Your task to perform on an android device: Open Maps and search for coffee Image 0: 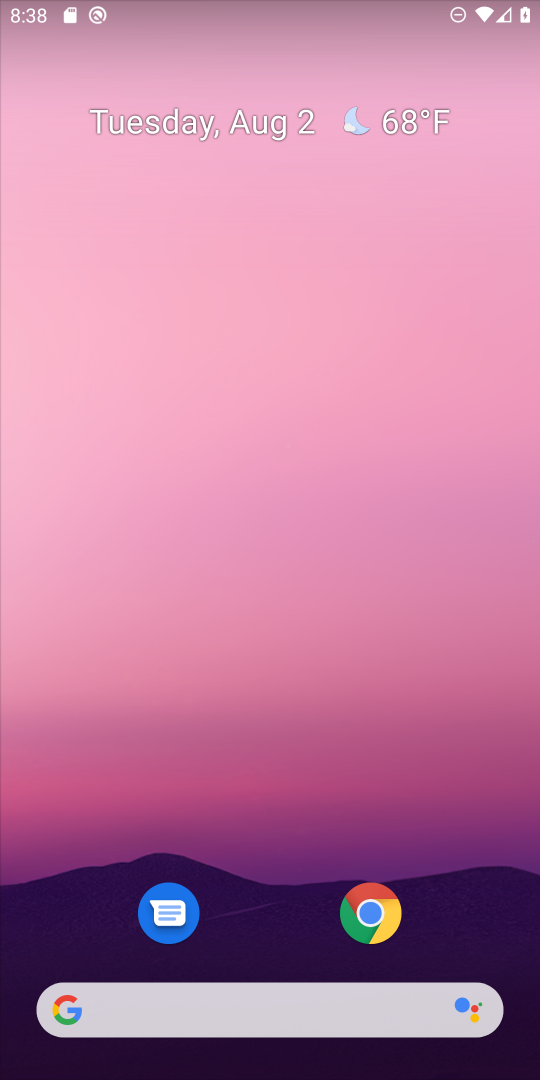
Step 0: drag from (247, 835) to (268, 256)
Your task to perform on an android device: Open Maps and search for coffee Image 1: 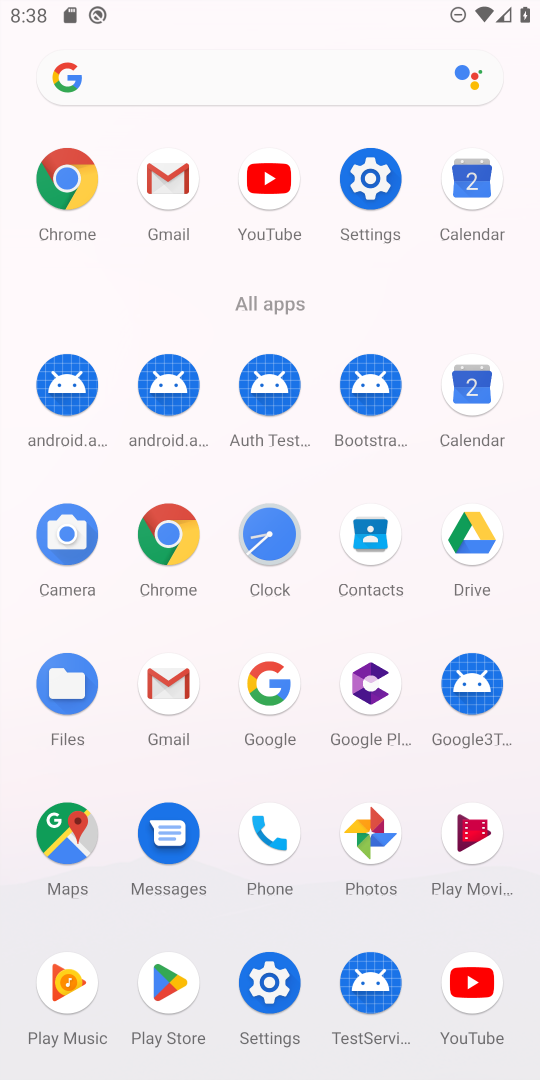
Step 1: click (85, 847)
Your task to perform on an android device: Open Maps and search for coffee Image 2: 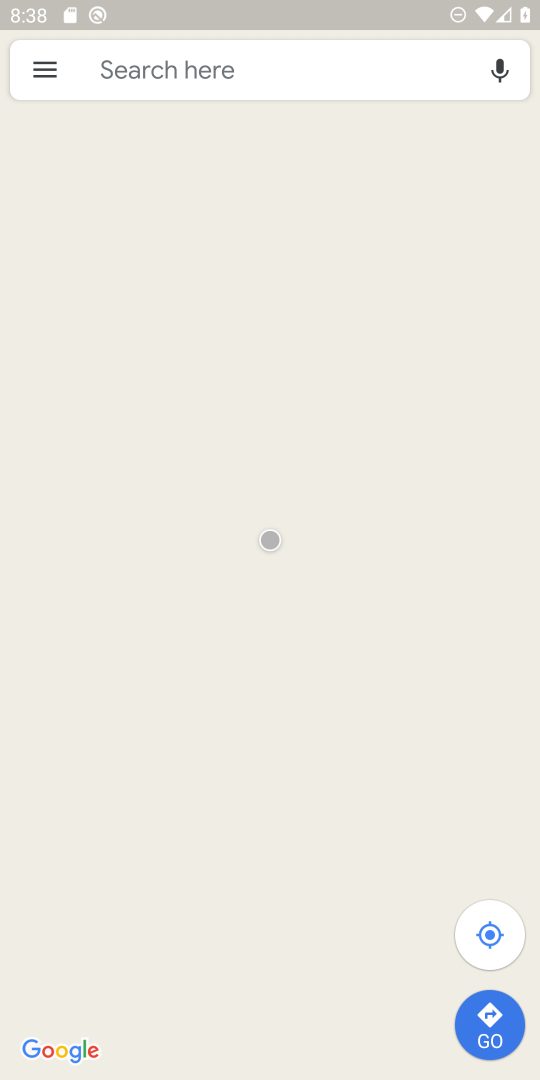
Step 2: click (164, 69)
Your task to perform on an android device: Open Maps and search for coffee Image 3: 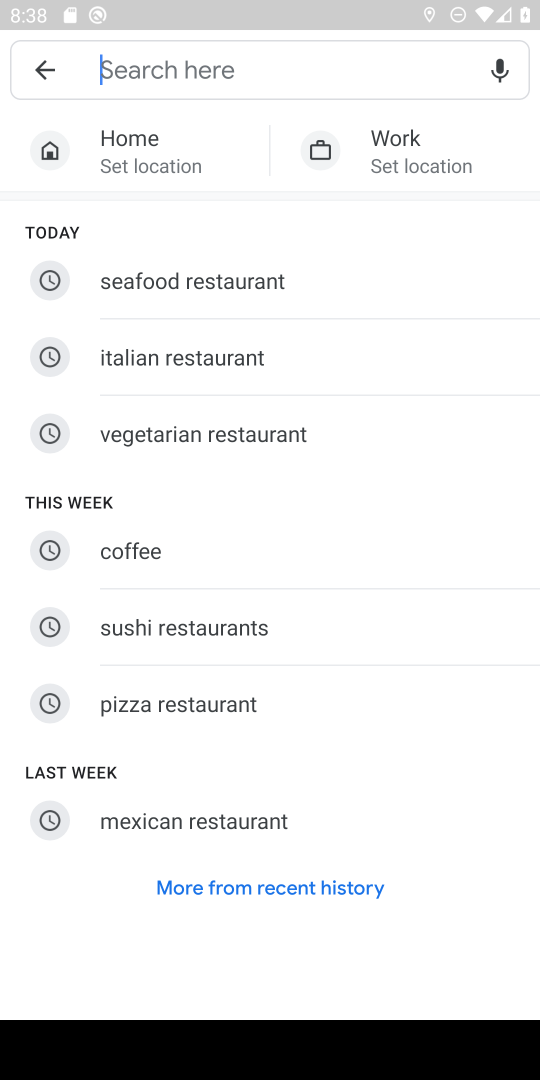
Step 3: type "coffee"
Your task to perform on an android device: Open Maps and search for coffee Image 4: 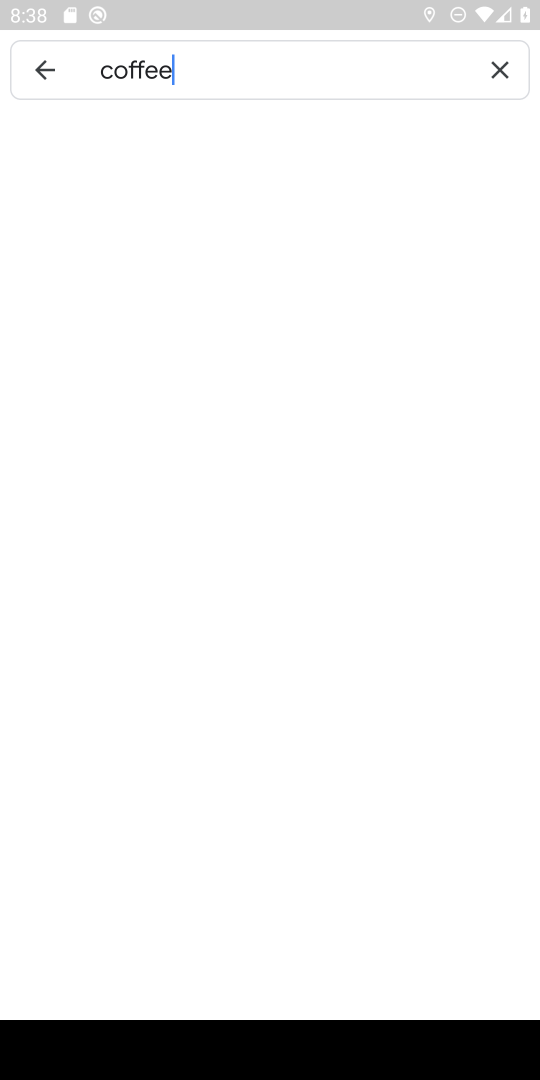
Step 4: press enter
Your task to perform on an android device: Open Maps and search for coffee Image 5: 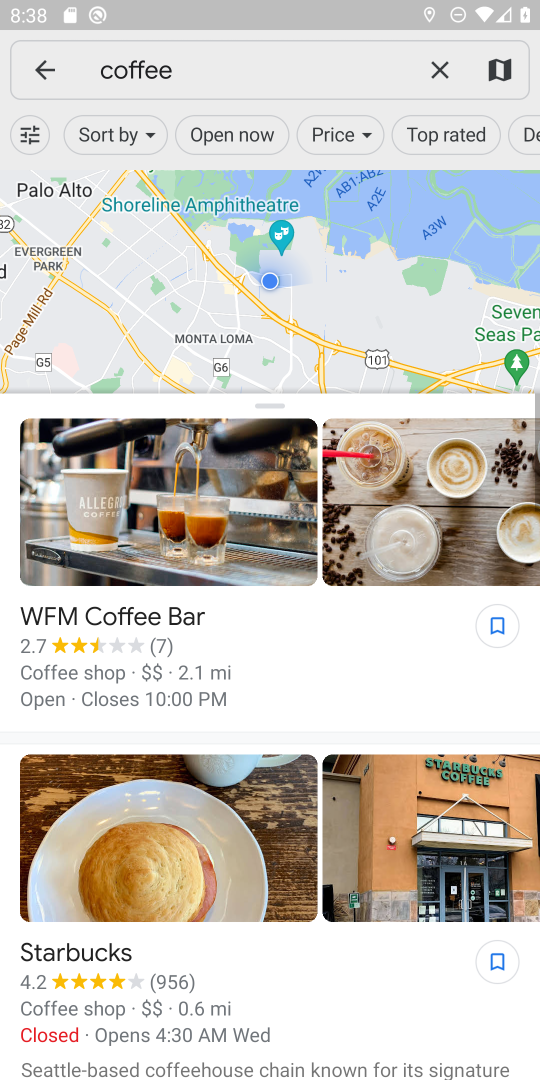
Step 5: task complete